Your task to perform on an android device: What is the recent news? Image 0: 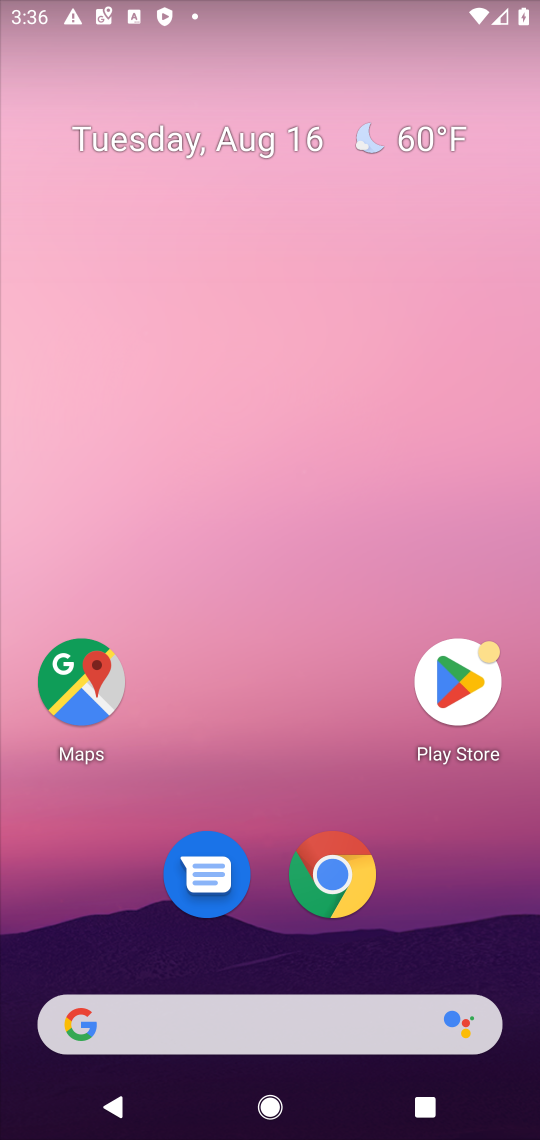
Step 0: click (330, 887)
Your task to perform on an android device: What is the recent news? Image 1: 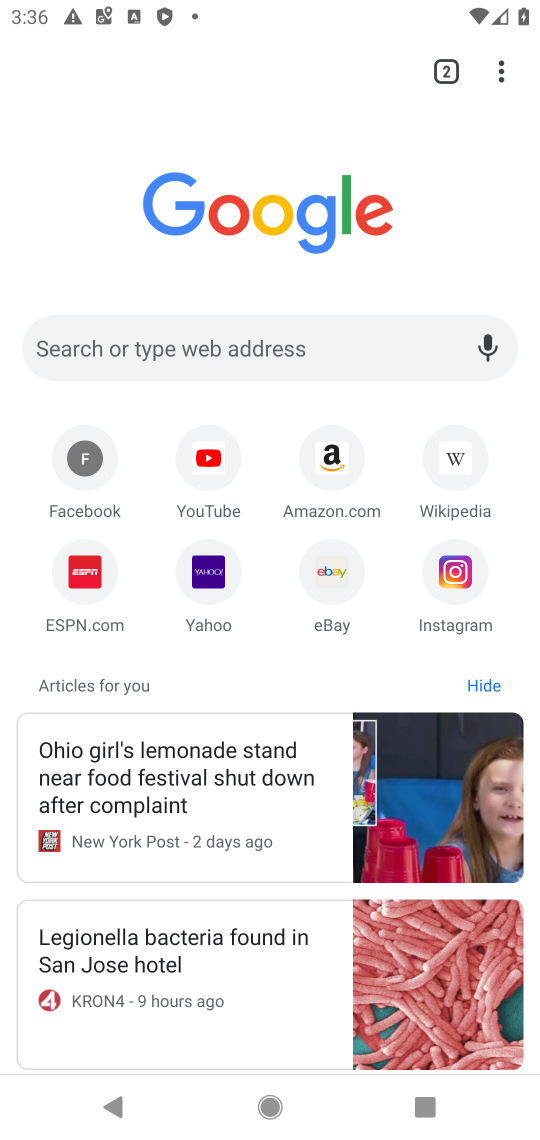
Step 1: press home button
Your task to perform on an android device: What is the recent news? Image 2: 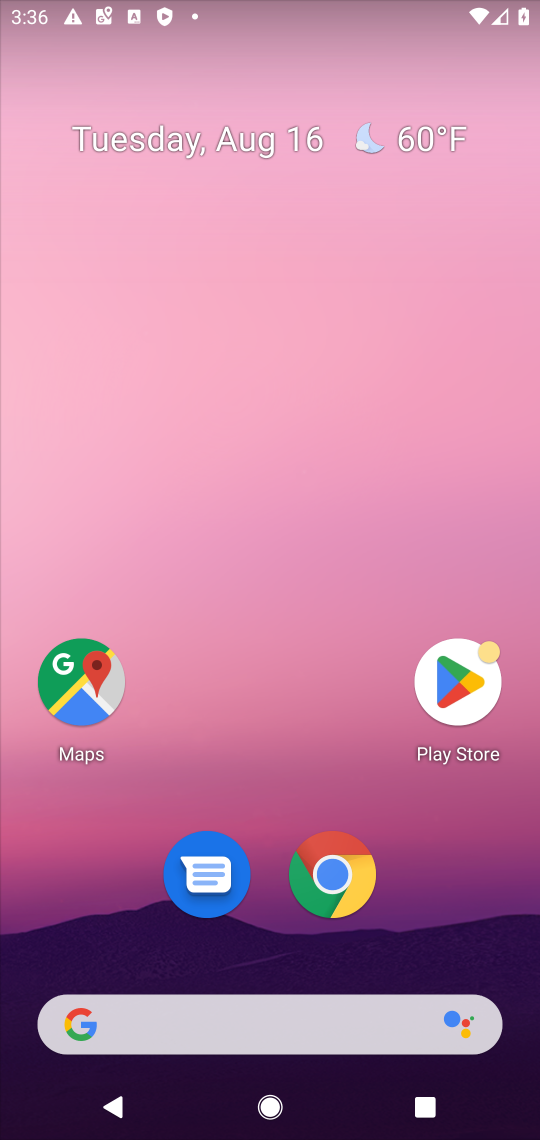
Step 2: click (205, 1019)
Your task to perform on an android device: What is the recent news? Image 3: 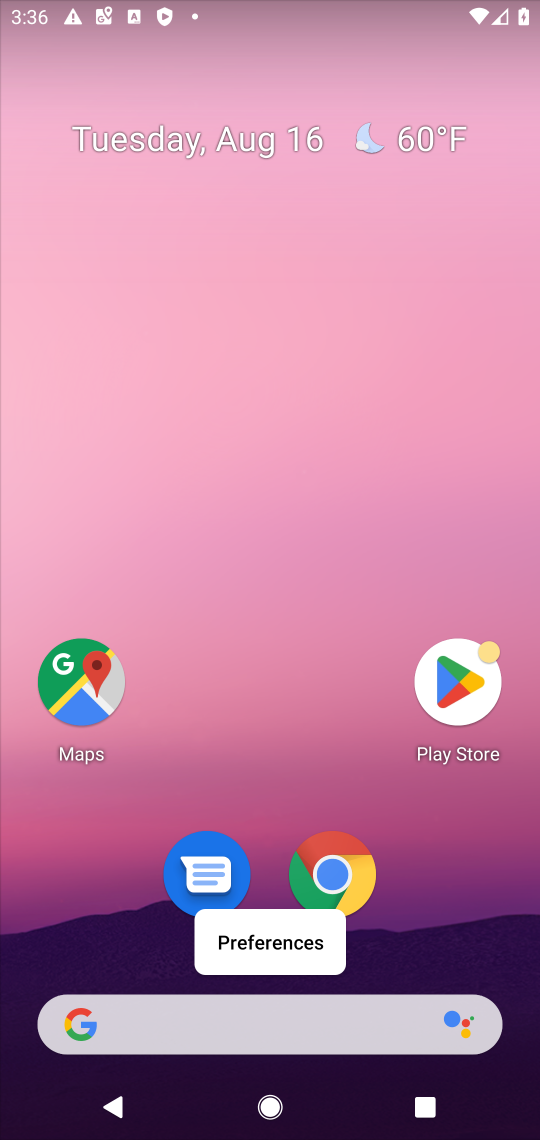
Step 3: click (181, 1036)
Your task to perform on an android device: What is the recent news? Image 4: 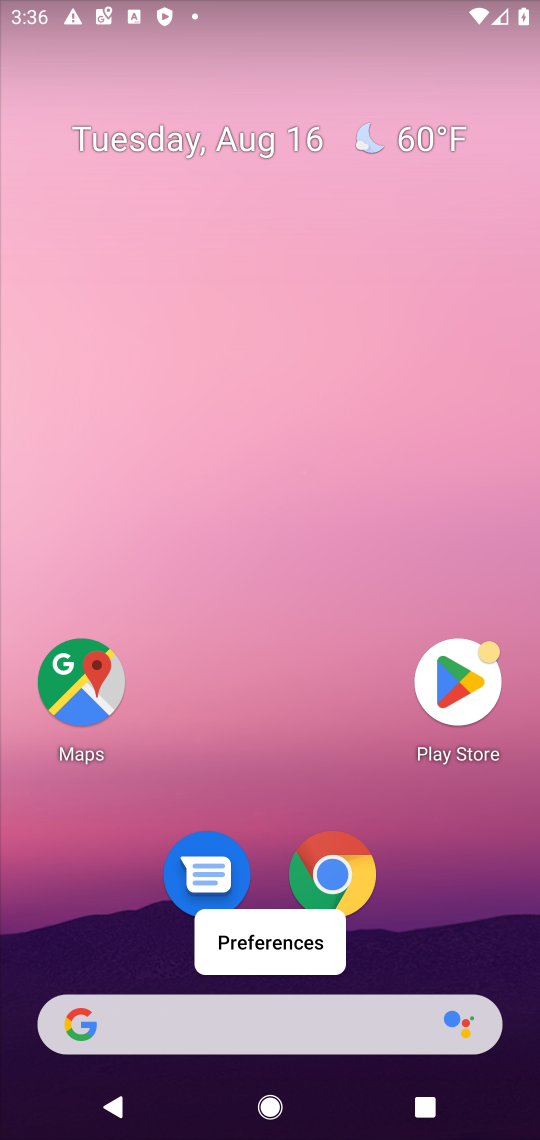
Step 4: click (177, 1025)
Your task to perform on an android device: What is the recent news? Image 5: 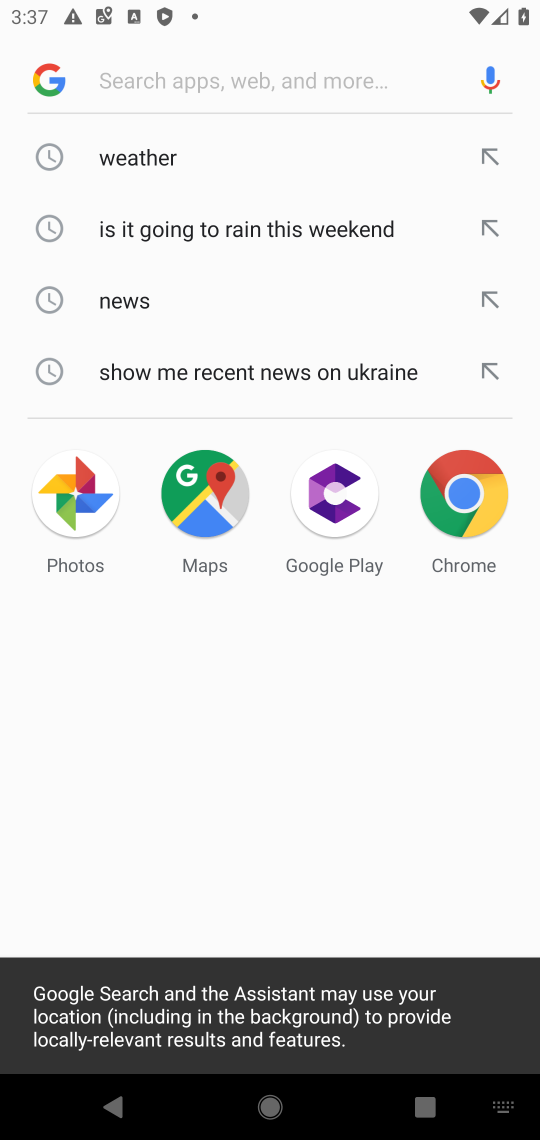
Step 5: click (135, 305)
Your task to perform on an android device: What is the recent news? Image 6: 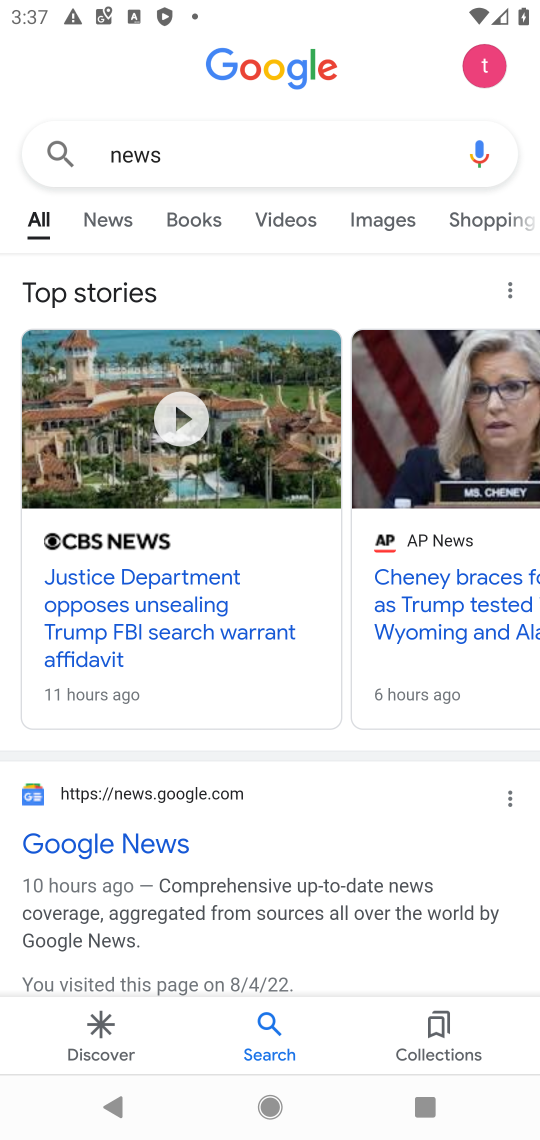
Step 6: task complete